Your task to perform on an android device: Open battery settings Image 0: 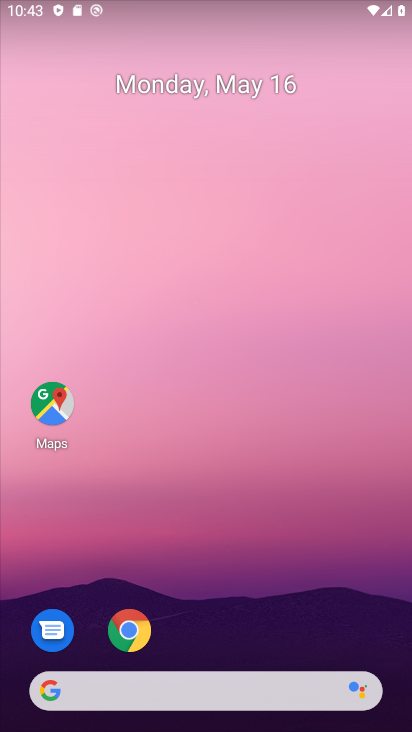
Step 0: drag from (217, 632) to (208, 359)
Your task to perform on an android device: Open battery settings Image 1: 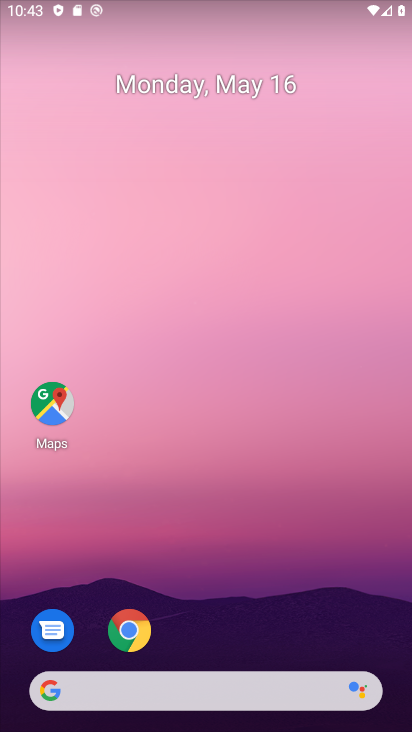
Step 1: drag from (228, 634) to (182, 155)
Your task to perform on an android device: Open battery settings Image 2: 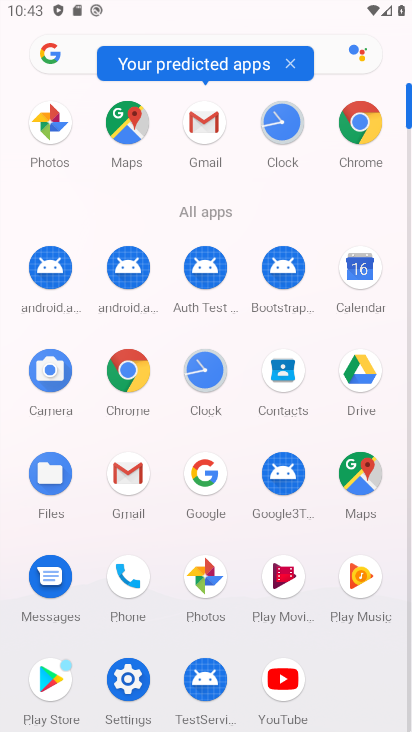
Step 2: click (136, 674)
Your task to perform on an android device: Open battery settings Image 3: 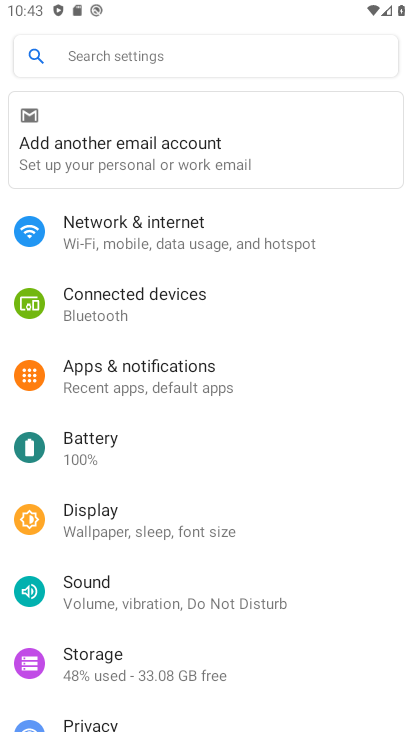
Step 3: click (195, 453)
Your task to perform on an android device: Open battery settings Image 4: 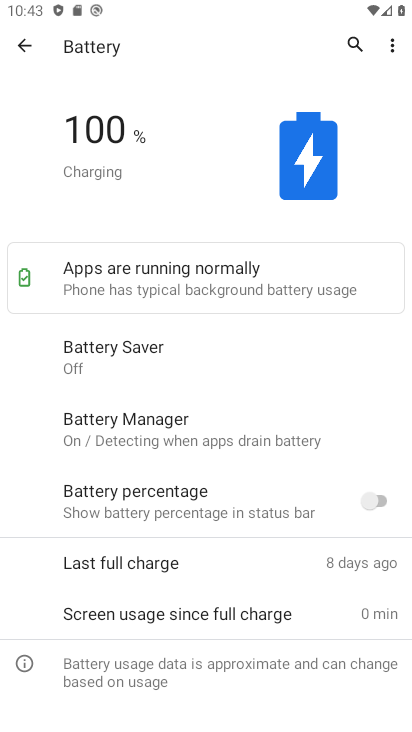
Step 4: task complete